Your task to perform on an android device: Is it going to rain tomorrow? Image 0: 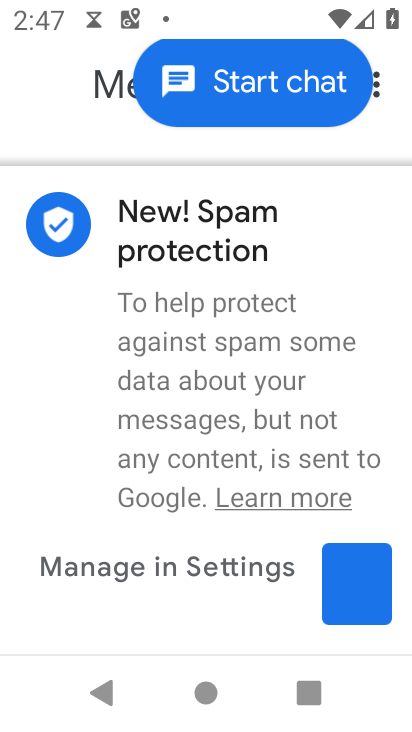
Step 0: press home button
Your task to perform on an android device: Is it going to rain tomorrow? Image 1: 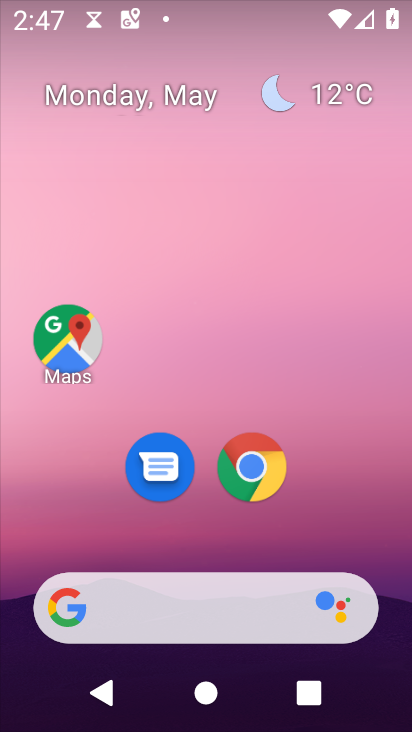
Step 1: click (265, 612)
Your task to perform on an android device: Is it going to rain tomorrow? Image 2: 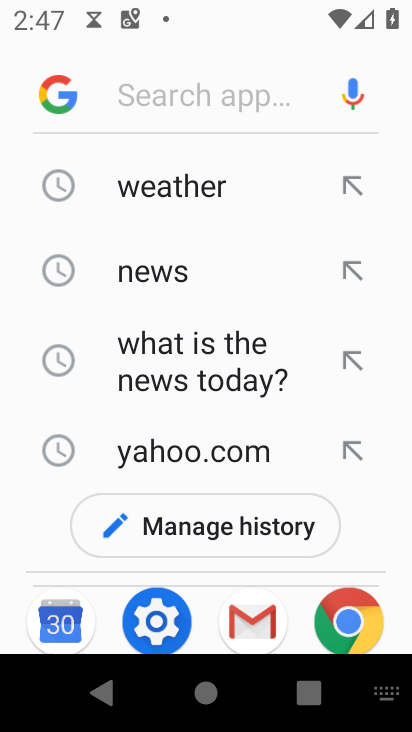
Step 2: type "Is it going to rain tomorrow?"
Your task to perform on an android device: Is it going to rain tomorrow? Image 3: 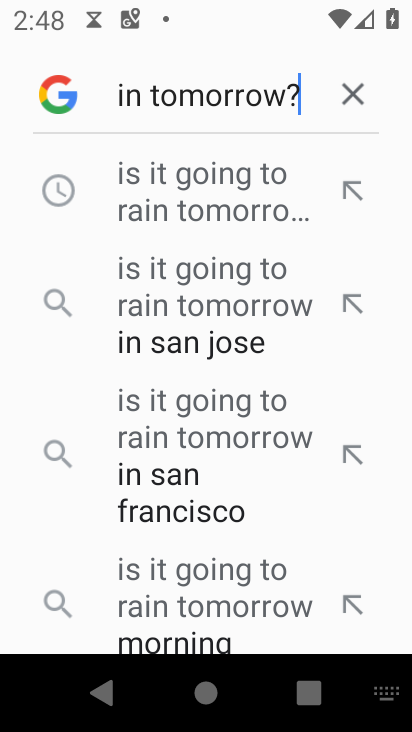
Step 3: click (236, 186)
Your task to perform on an android device: Is it going to rain tomorrow? Image 4: 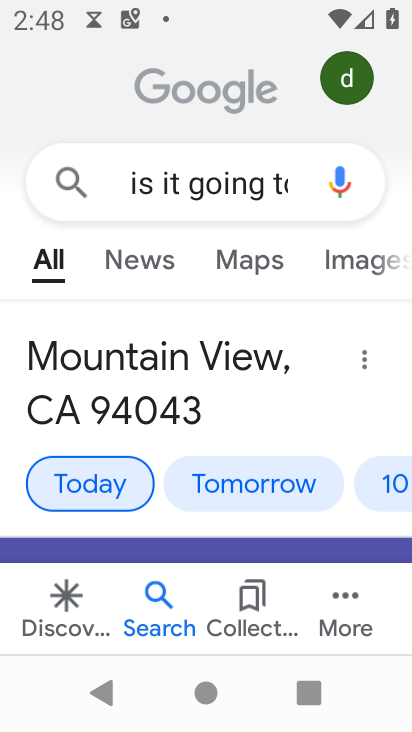
Step 4: task complete